Your task to perform on an android device: Open Google Chrome Image 0: 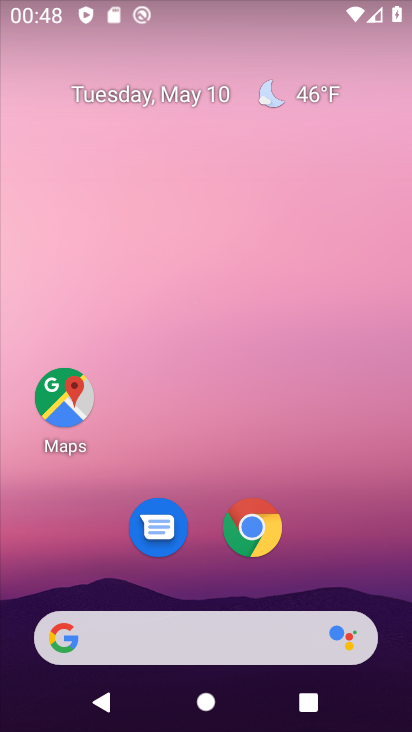
Step 0: click (246, 532)
Your task to perform on an android device: Open Google Chrome Image 1: 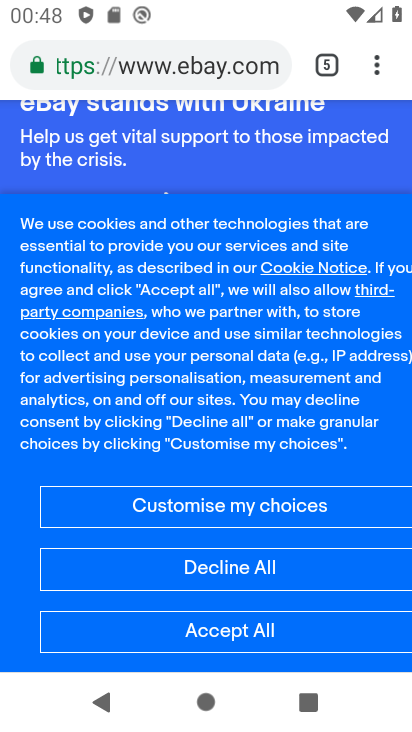
Step 1: task complete